Your task to perform on an android device: Open wifi settings Image 0: 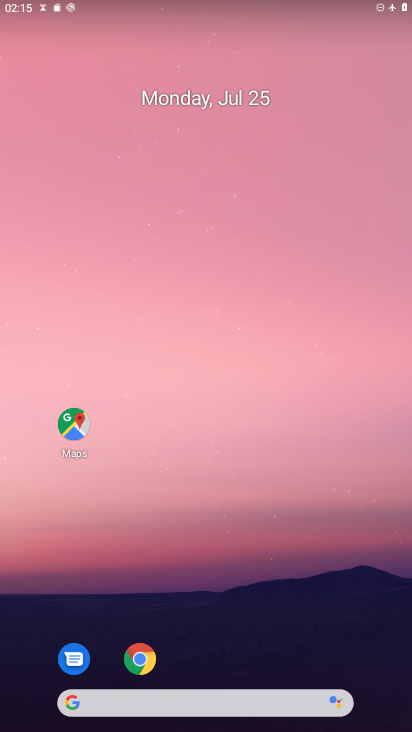
Step 0: drag from (221, 630) to (264, 17)
Your task to perform on an android device: Open wifi settings Image 1: 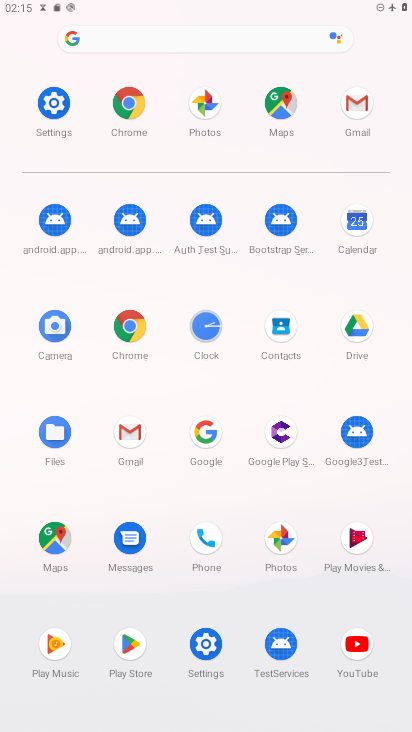
Step 1: click (63, 90)
Your task to perform on an android device: Open wifi settings Image 2: 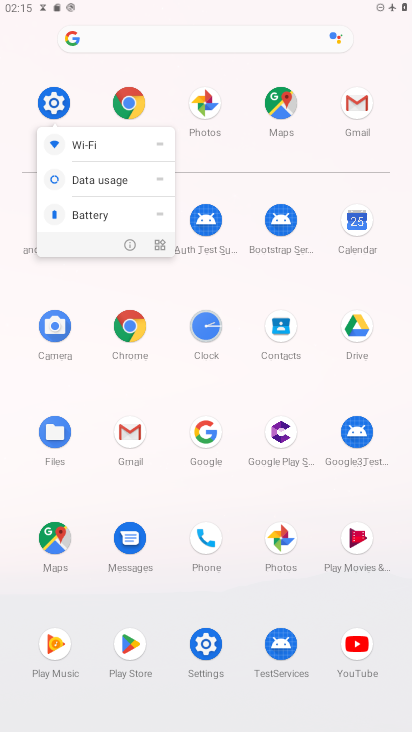
Step 2: click (44, 98)
Your task to perform on an android device: Open wifi settings Image 3: 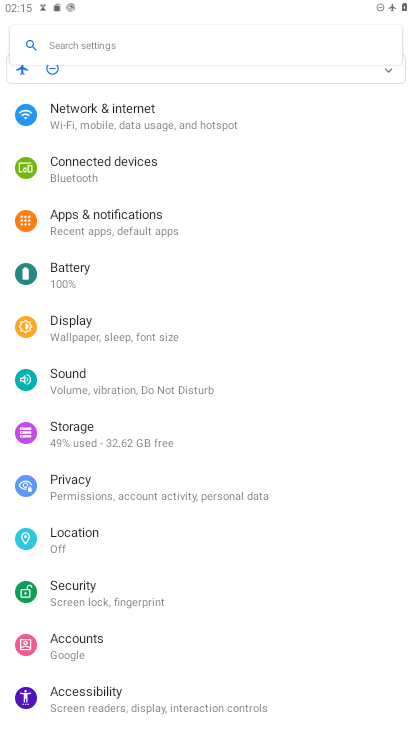
Step 3: click (52, 102)
Your task to perform on an android device: Open wifi settings Image 4: 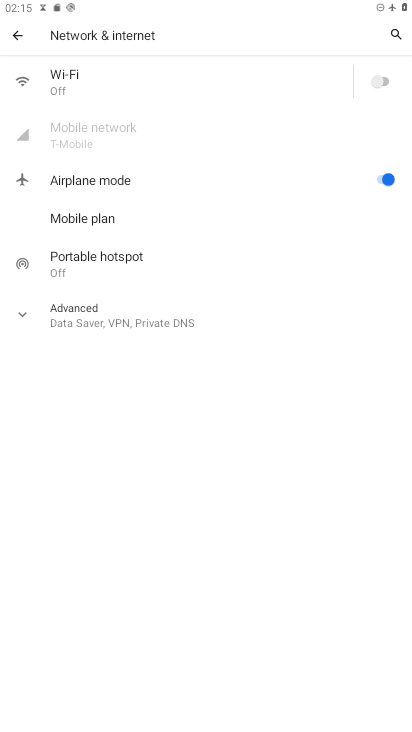
Step 4: click (150, 73)
Your task to perform on an android device: Open wifi settings Image 5: 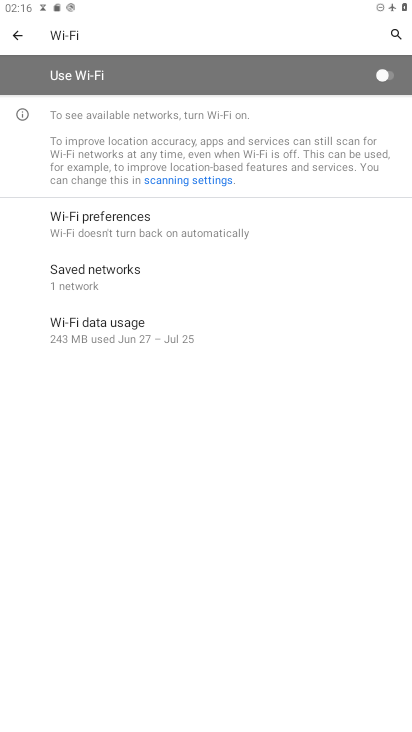
Step 5: task complete